Your task to perform on an android device: turn on sleep mode Image 0: 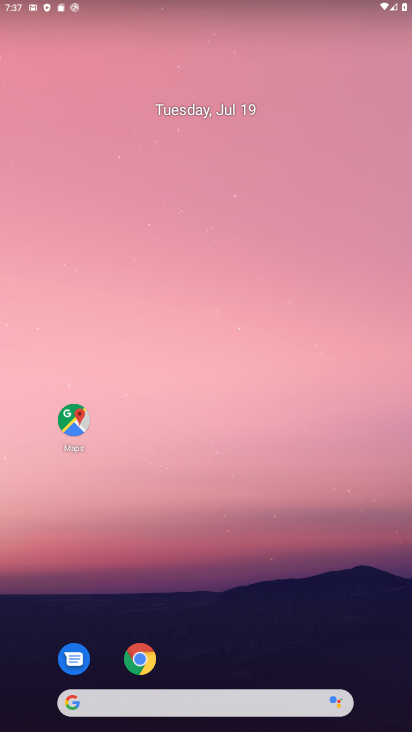
Step 0: drag from (261, 675) to (312, 304)
Your task to perform on an android device: turn on sleep mode Image 1: 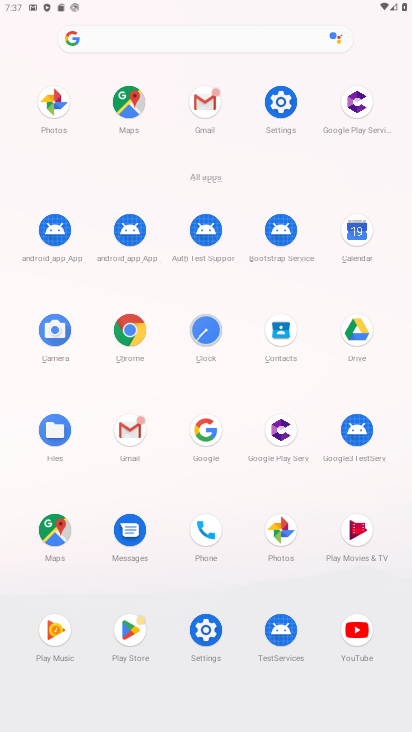
Step 1: click (280, 93)
Your task to perform on an android device: turn on sleep mode Image 2: 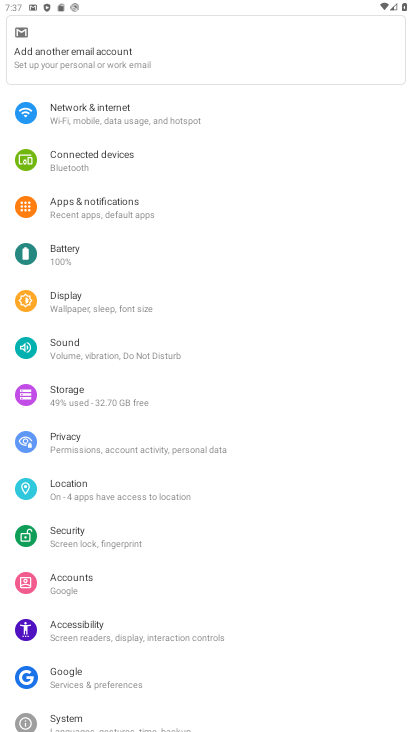
Step 2: task complete